Your task to perform on an android device: Go to wifi settings Image 0: 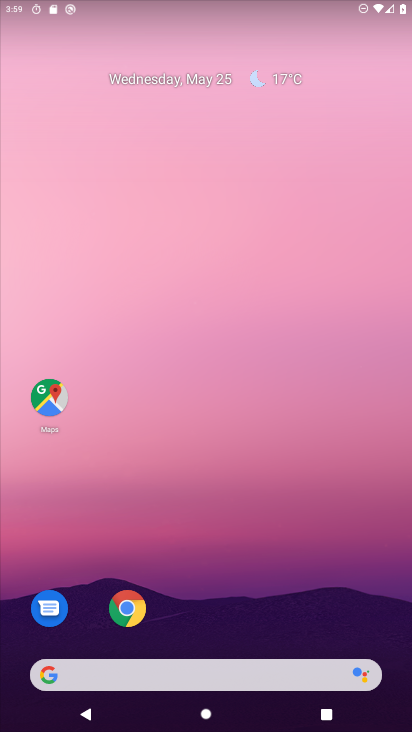
Step 0: drag from (212, 611) to (230, 153)
Your task to perform on an android device: Go to wifi settings Image 1: 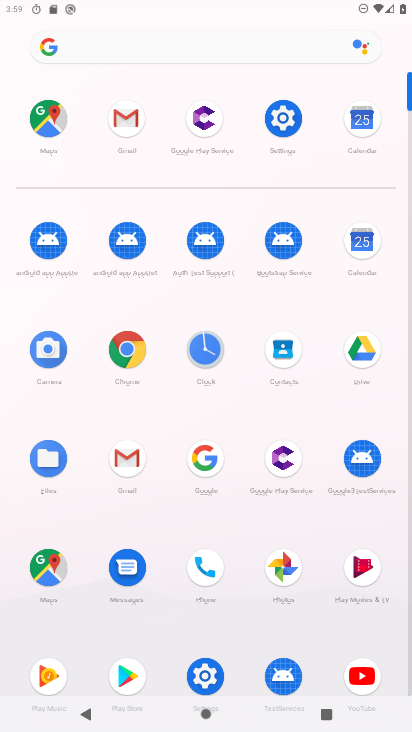
Step 1: click (289, 102)
Your task to perform on an android device: Go to wifi settings Image 2: 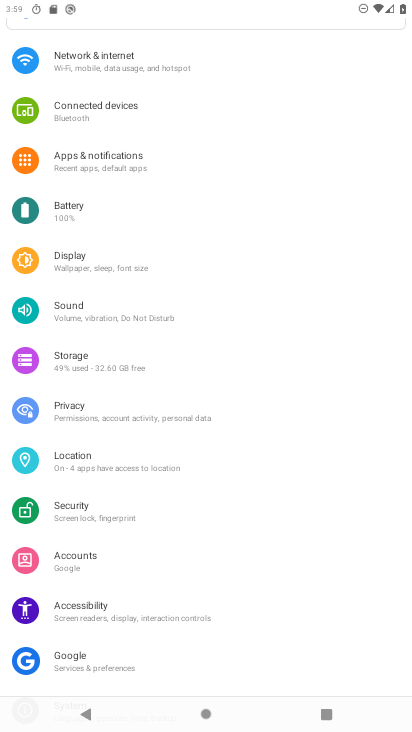
Step 2: click (103, 56)
Your task to perform on an android device: Go to wifi settings Image 3: 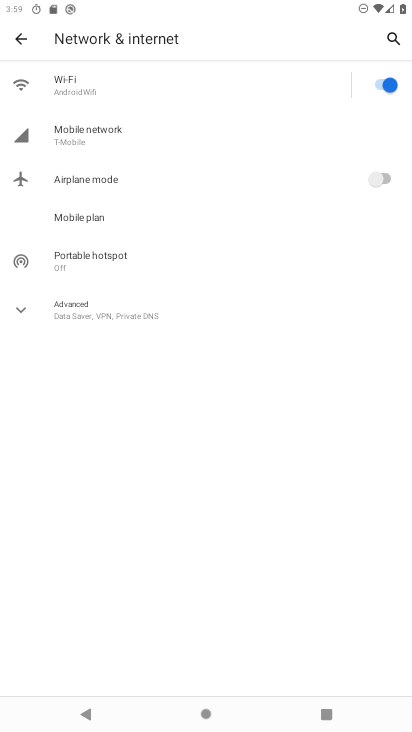
Step 3: click (104, 88)
Your task to perform on an android device: Go to wifi settings Image 4: 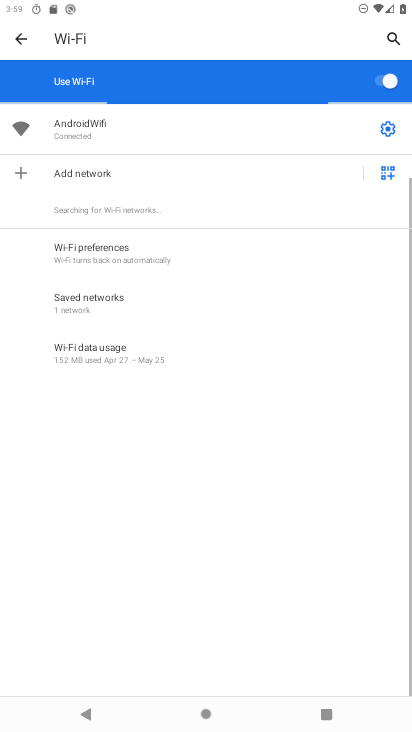
Step 4: click (378, 128)
Your task to perform on an android device: Go to wifi settings Image 5: 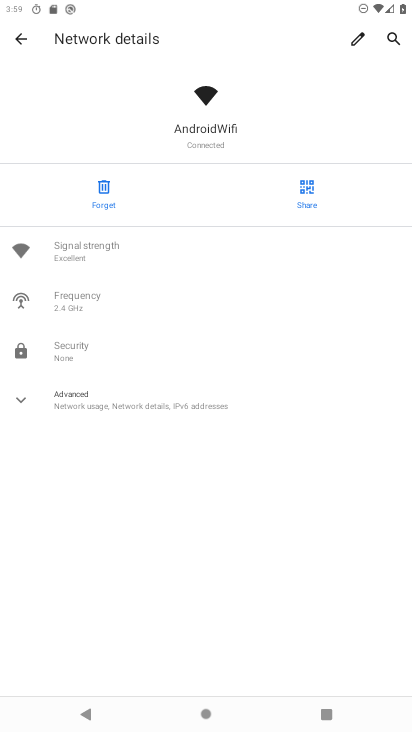
Step 5: task complete